Your task to perform on an android device: When is my next appointment? Image 0: 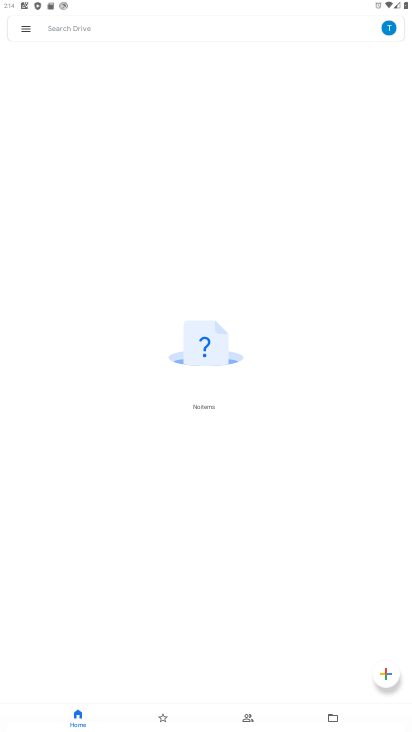
Step 0: press home button
Your task to perform on an android device: When is my next appointment? Image 1: 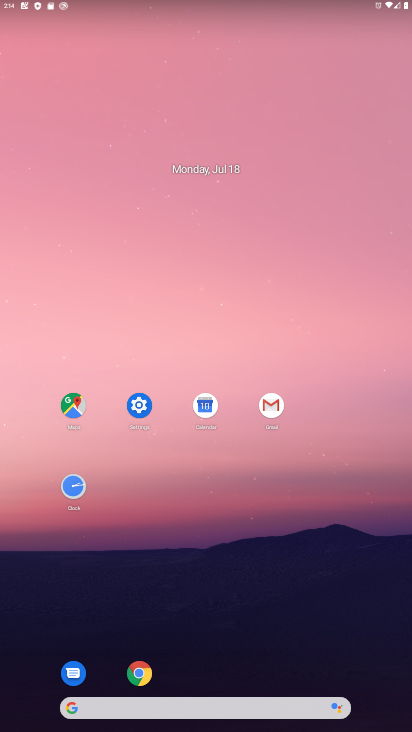
Step 1: drag from (380, 670) to (293, 64)
Your task to perform on an android device: When is my next appointment? Image 2: 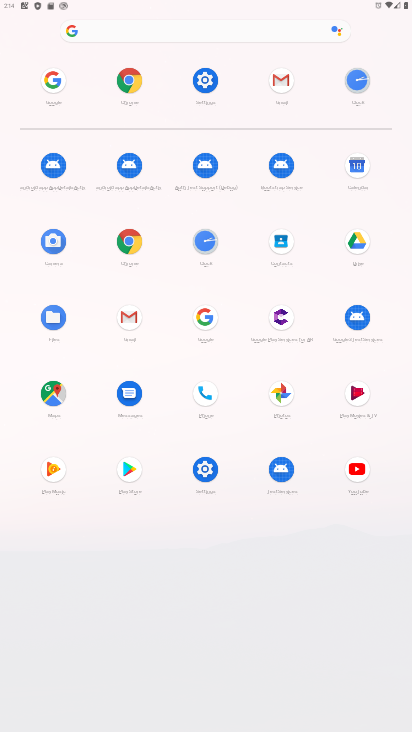
Step 2: click (344, 168)
Your task to perform on an android device: When is my next appointment? Image 3: 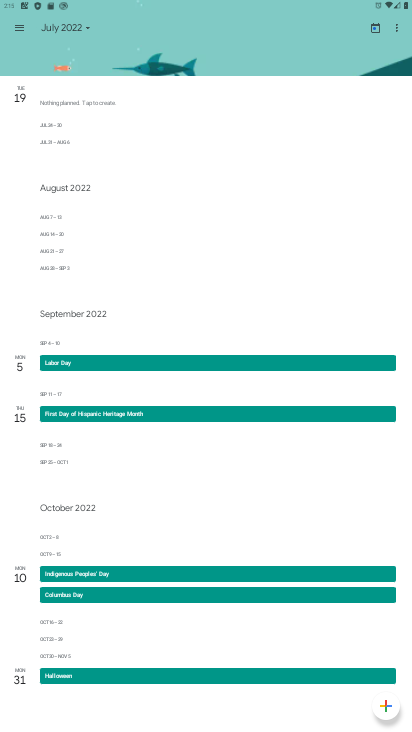
Step 3: click (10, 21)
Your task to perform on an android device: When is my next appointment? Image 4: 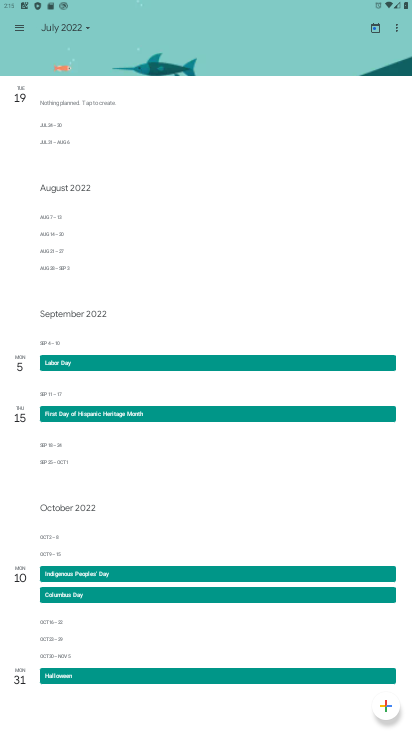
Step 4: click (15, 30)
Your task to perform on an android device: When is my next appointment? Image 5: 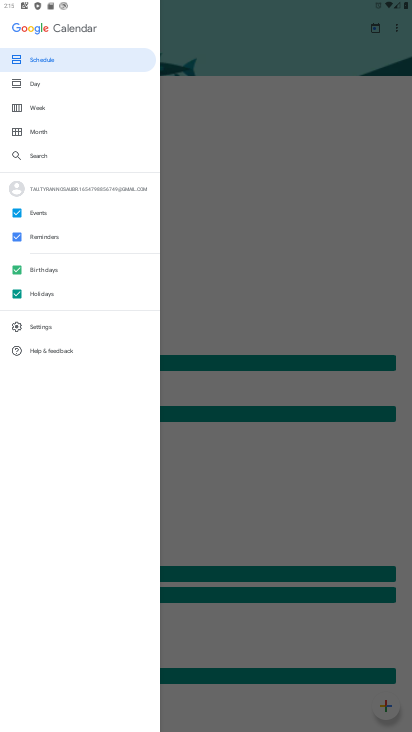
Step 5: click (11, 295)
Your task to perform on an android device: When is my next appointment? Image 6: 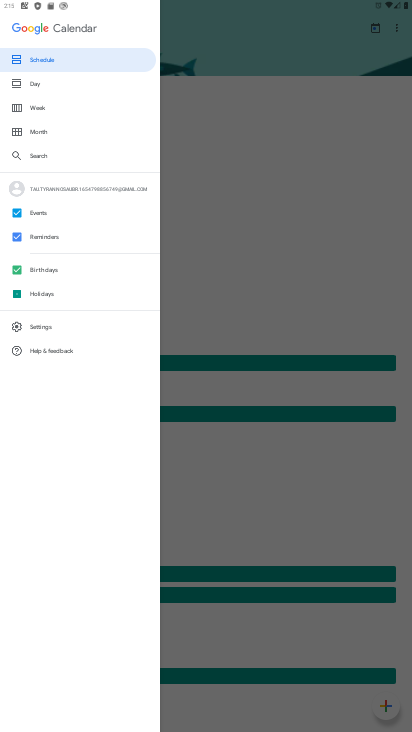
Step 6: click (16, 268)
Your task to perform on an android device: When is my next appointment? Image 7: 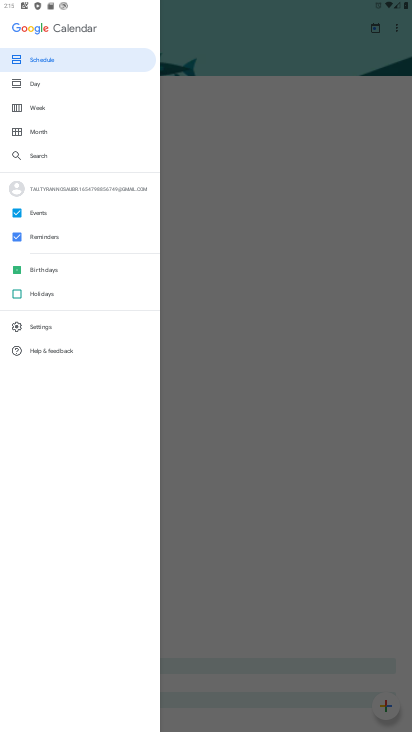
Step 7: click (20, 228)
Your task to perform on an android device: When is my next appointment? Image 8: 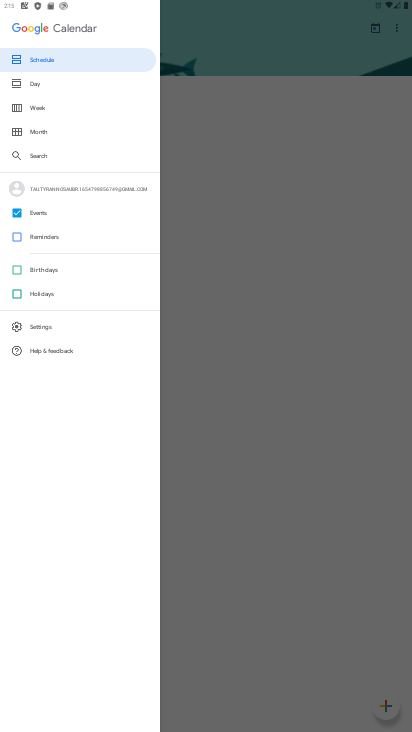
Step 8: click (36, 60)
Your task to perform on an android device: When is my next appointment? Image 9: 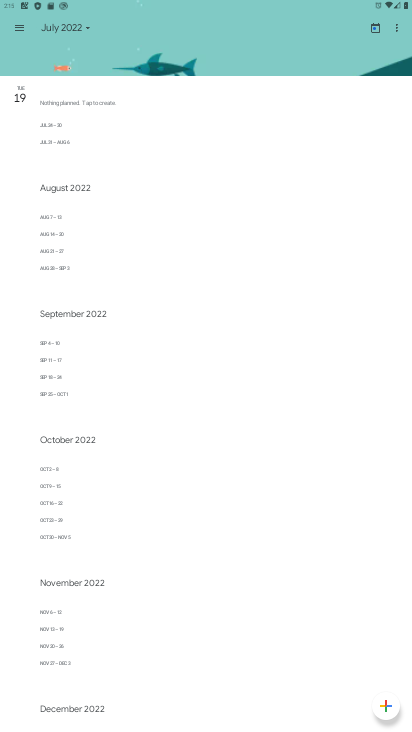
Step 9: task complete